Your task to perform on an android device: Go to eBay Image 0: 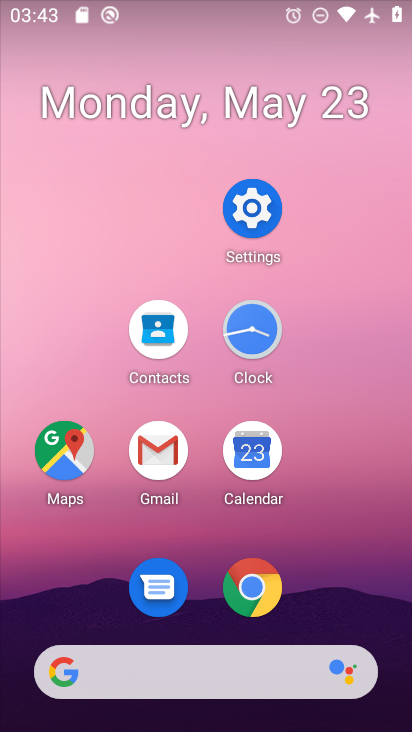
Step 0: click (239, 664)
Your task to perform on an android device: Go to eBay Image 1: 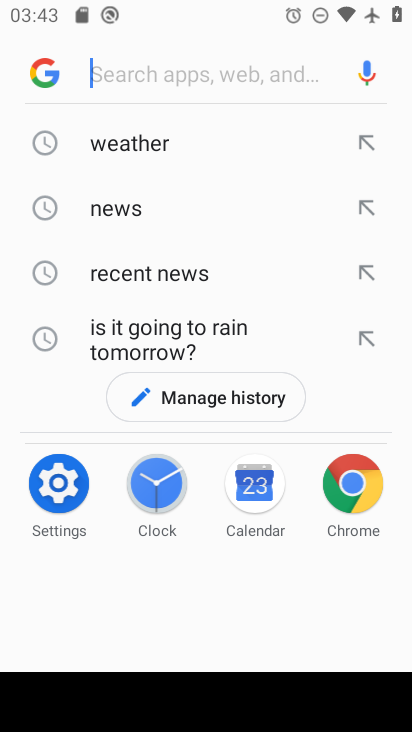
Step 1: type "ebay.com"
Your task to perform on an android device: Go to eBay Image 2: 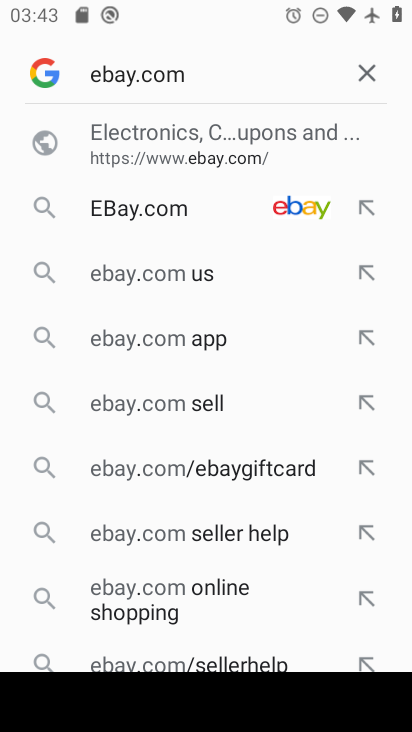
Step 2: click (148, 209)
Your task to perform on an android device: Go to eBay Image 3: 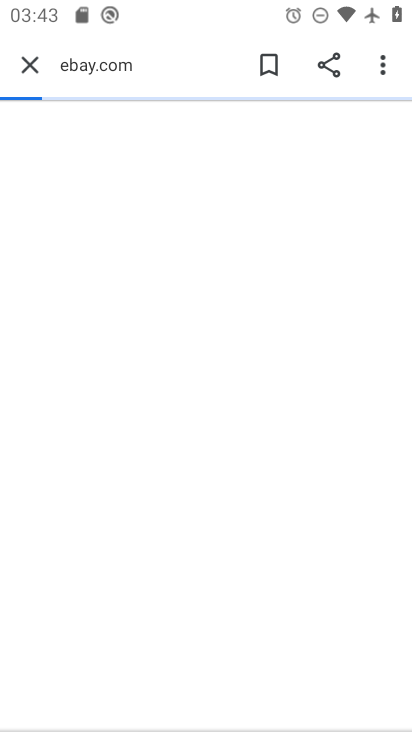
Step 3: task complete